Your task to perform on an android device: Open Google Maps and go to "Timeline" Image 0: 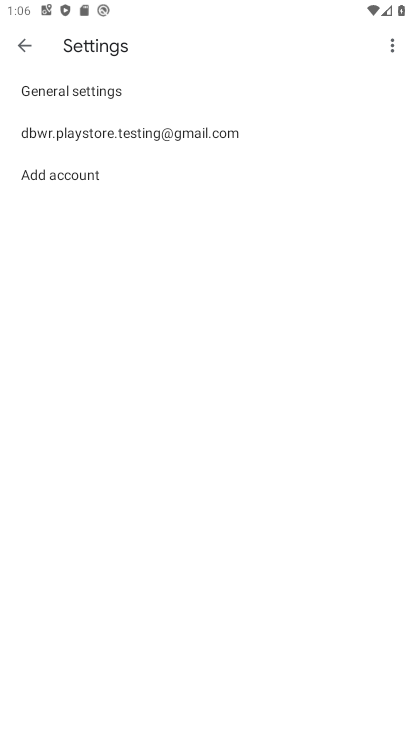
Step 0: press home button
Your task to perform on an android device: Open Google Maps and go to "Timeline" Image 1: 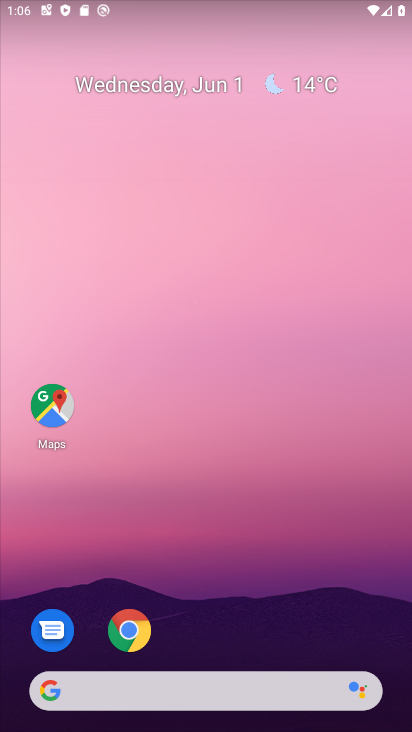
Step 1: click (51, 407)
Your task to perform on an android device: Open Google Maps and go to "Timeline" Image 2: 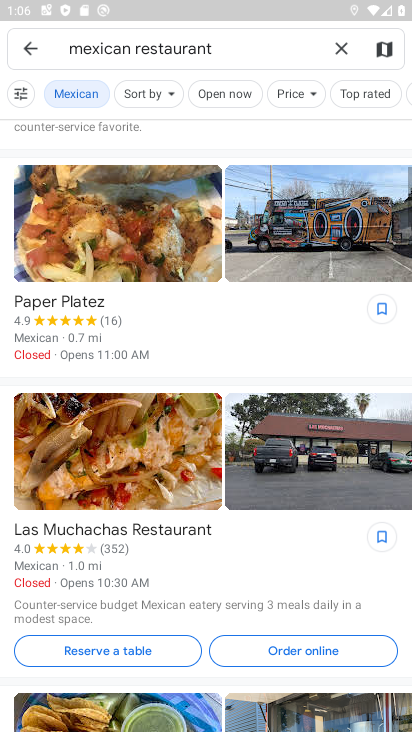
Step 2: click (29, 43)
Your task to perform on an android device: Open Google Maps and go to "Timeline" Image 3: 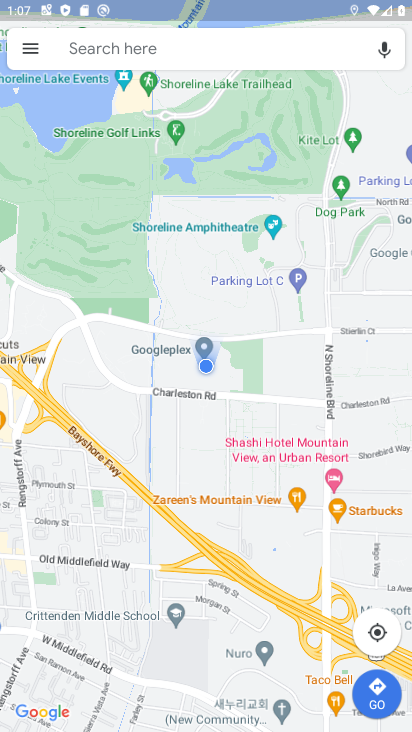
Step 3: click (31, 49)
Your task to perform on an android device: Open Google Maps and go to "Timeline" Image 4: 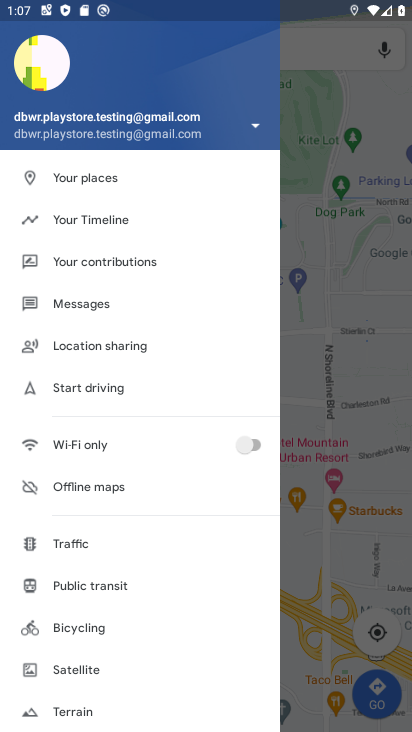
Step 4: click (102, 218)
Your task to perform on an android device: Open Google Maps and go to "Timeline" Image 5: 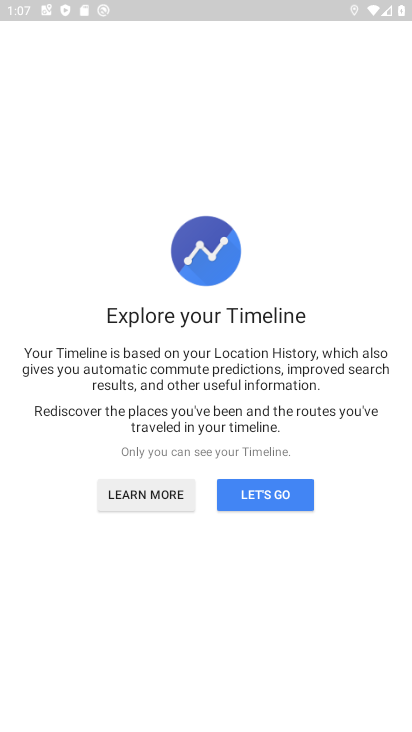
Step 5: click (249, 503)
Your task to perform on an android device: Open Google Maps and go to "Timeline" Image 6: 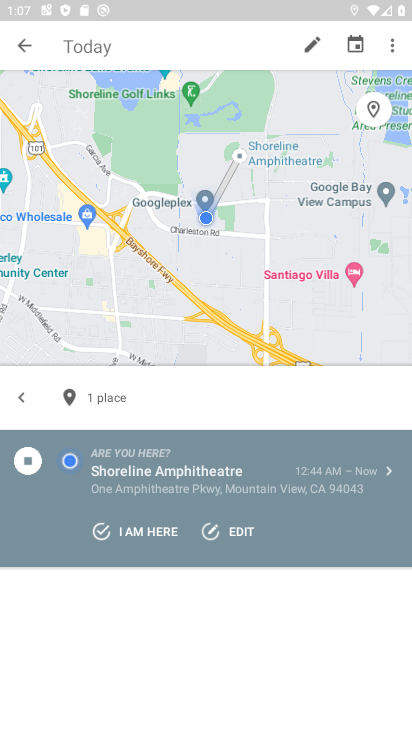
Step 6: task complete